Your task to perform on an android device: turn off location history Image 0: 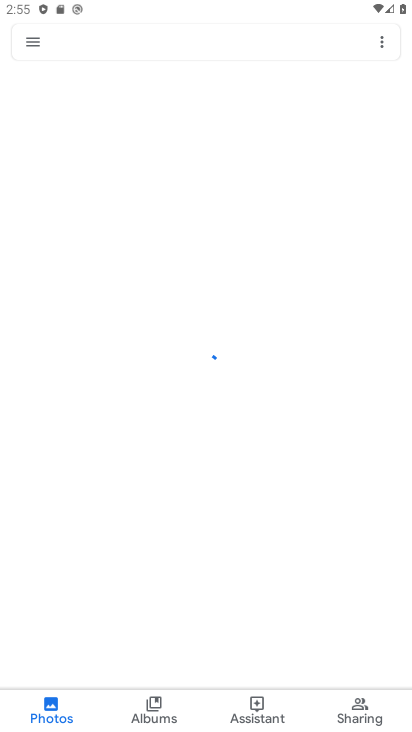
Step 0: press home button
Your task to perform on an android device: turn off location history Image 1: 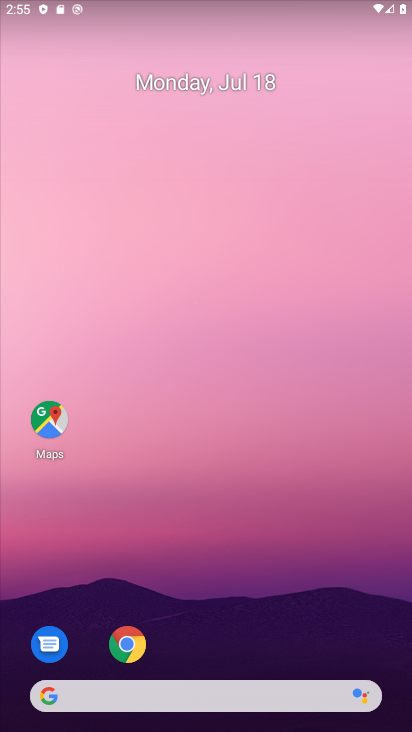
Step 1: click (49, 419)
Your task to perform on an android device: turn off location history Image 2: 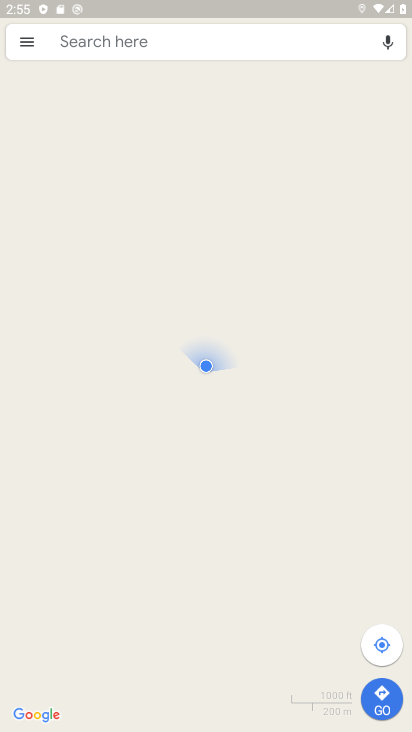
Step 2: click (21, 43)
Your task to perform on an android device: turn off location history Image 3: 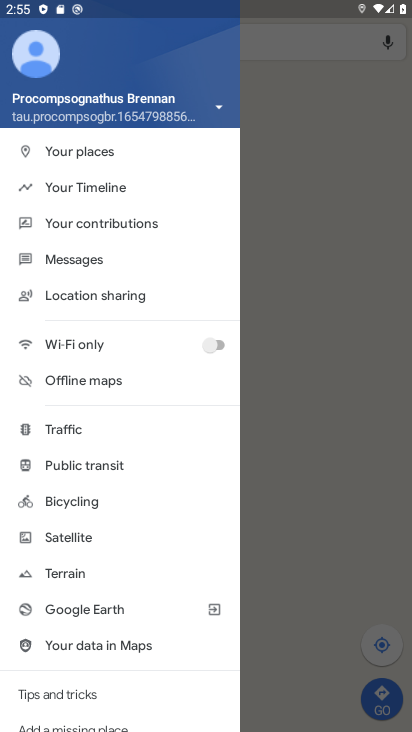
Step 3: drag from (104, 683) to (170, 183)
Your task to perform on an android device: turn off location history Image 4: 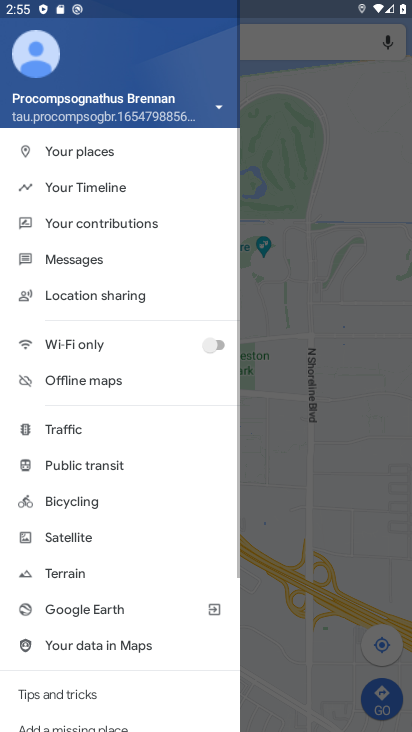
Step 4: drag from (144, 673) to (149, 280)
Your task to perform on an android device: turn off location history Image 5: 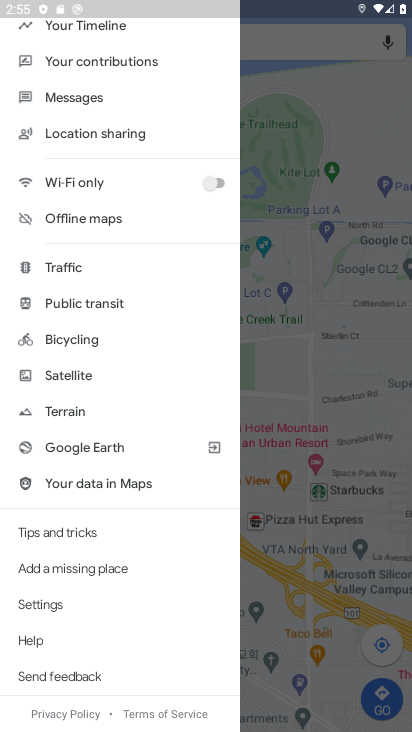
Step 5: click (46, 605)
Your task to perform on an android device: turn off location history Image 6: 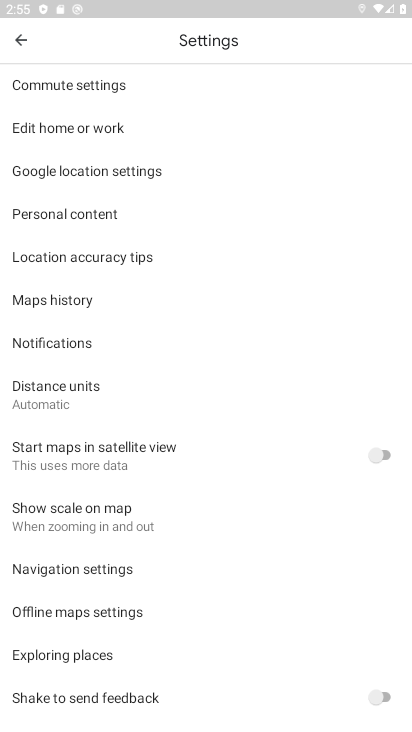
Step 6: click (51, 211)
Your task to perform on an android device: turn off location history Image 7: 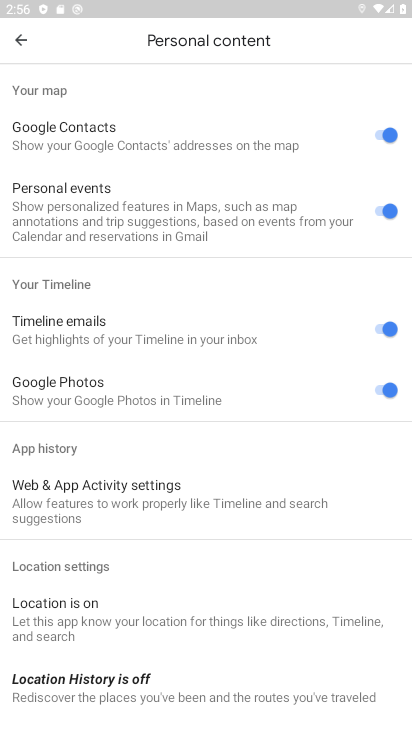
Step 7: task complete